Your task to perform on an android device: empty trash in google photos Image 0: 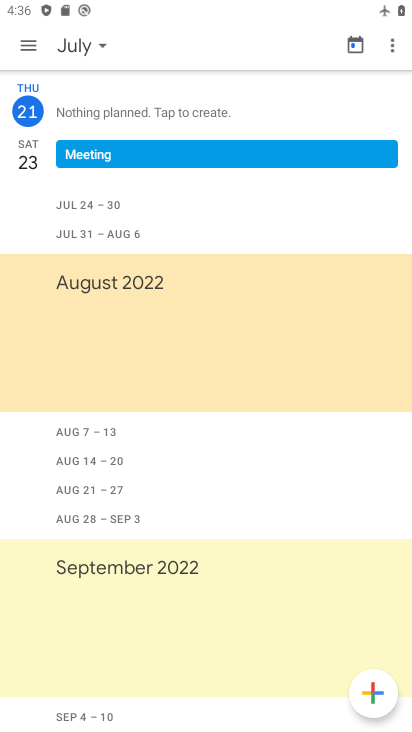
Step 0: press home button
Your task to perform on an android device: empty trash in google photos Image 1: 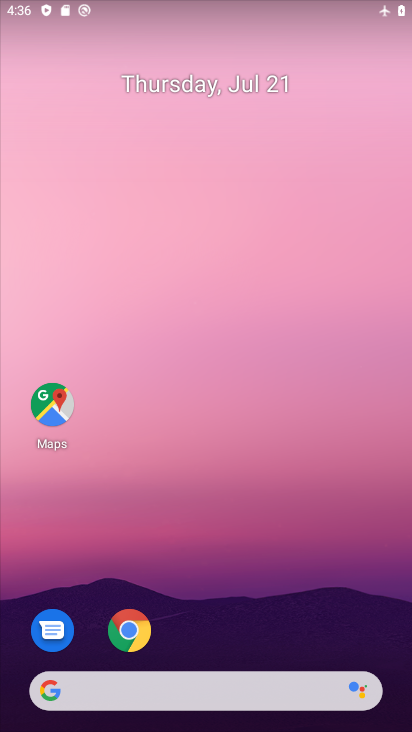
Step 1: drag from (351, 604) to (222, 155)
Your task to perform on an android device: empty trash in google photos Image 2: 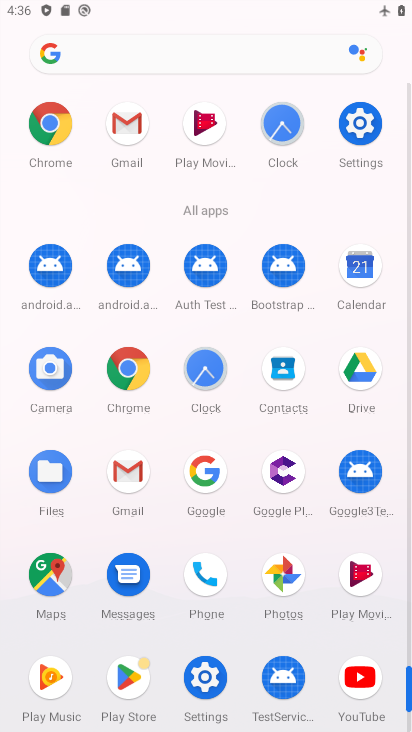
Step 2: click (300, 587)
Your task to perform on an android device: empty trash in google photos Image 3: 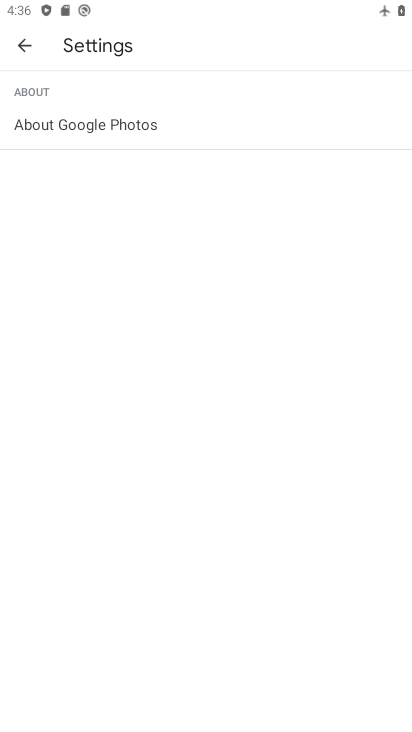
Step 3: click (27, 52)
Your task to perform on an android device: empty trash in google photos Image 4: 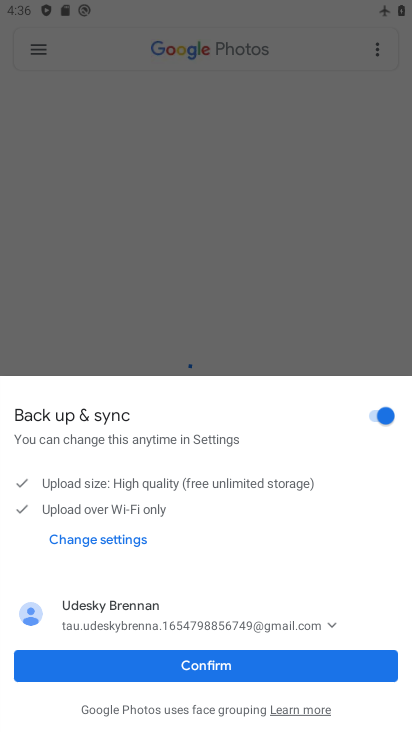
Step 4: click (34, 53)
Your task to perform on an android device: empty trash in google photos Image 5: 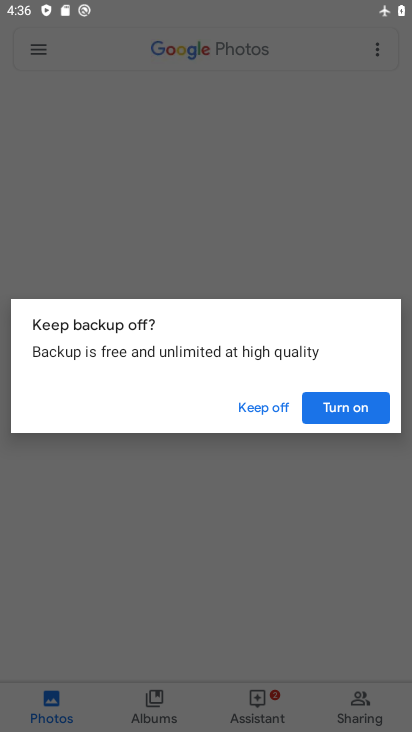
Step 5: click (337, 414)
Your task to perform on an android device: empty trash in google photos Image 6: 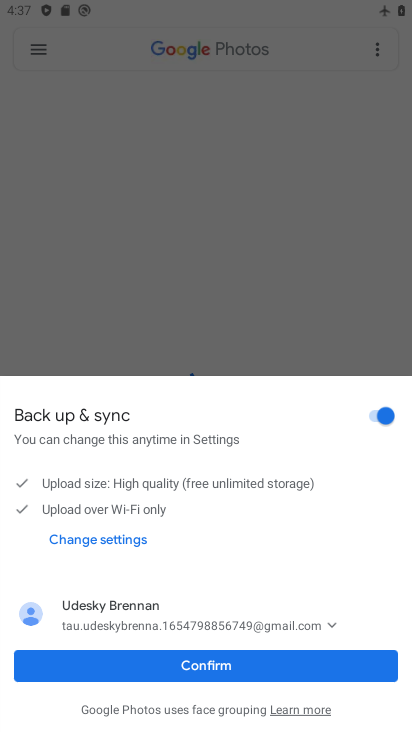
Step 6: click (221, 669)
Your task to perform on an android device: empty trash in google photos Image 7: 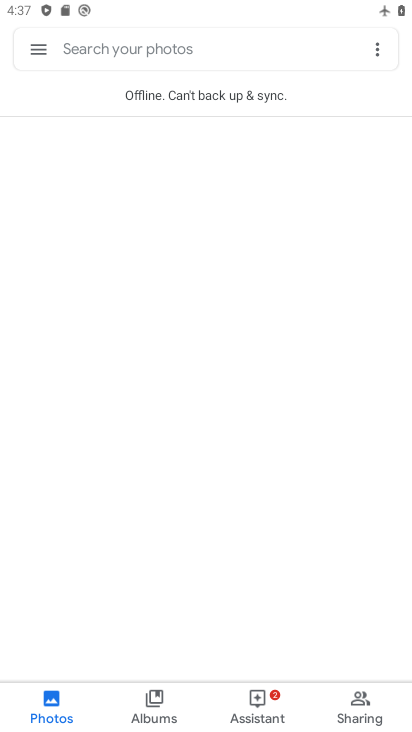
Step 7: click (43, 66)
Your task to perform on an android device: empty trash in google photos Image 8: 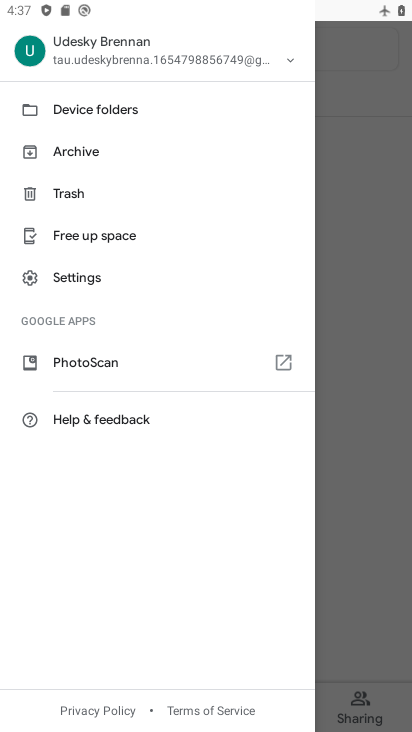
Step 8: click (97, 192)
Your task to perform on an android device: empty trash in google photos Image 9: 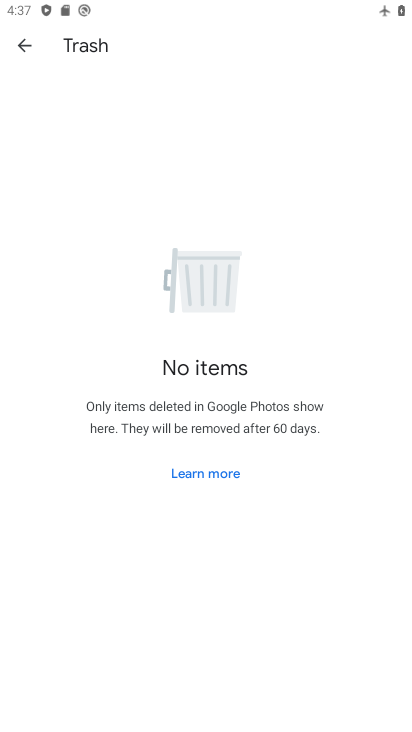
Step 9: task complete